Your task to perform on an android device: open the mobile data screen to see how much data has been used Image 0: 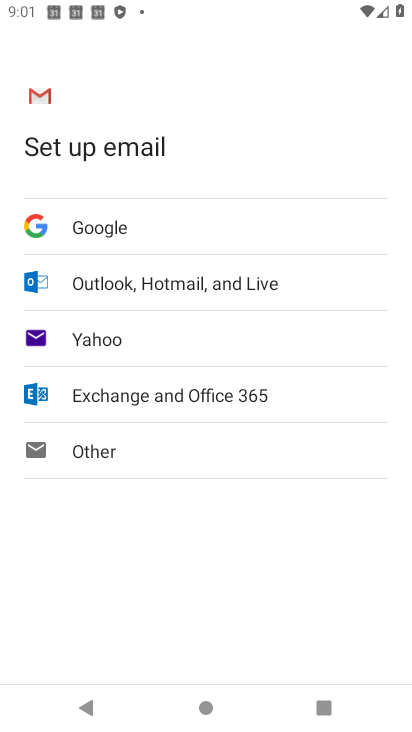
Step 0: press home button
Your task to perform on an android device: open the mobile data screen to see how much data has been used Image 1: 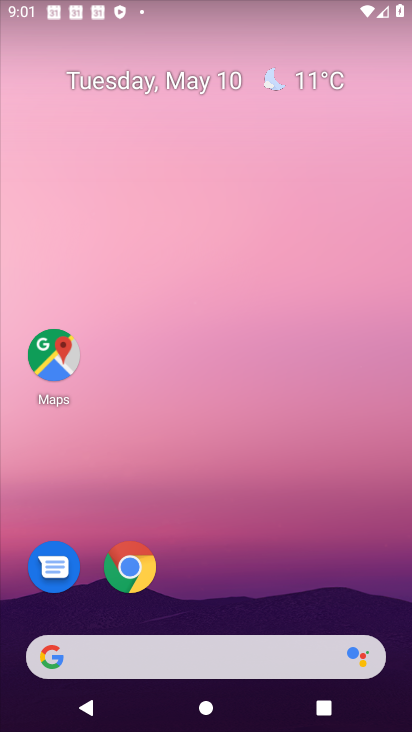
Step 1: drag from (152, 628) to (130, 286)
Your task to perform on an android device: open the mobile data screen to see how much data has been used Image 2: 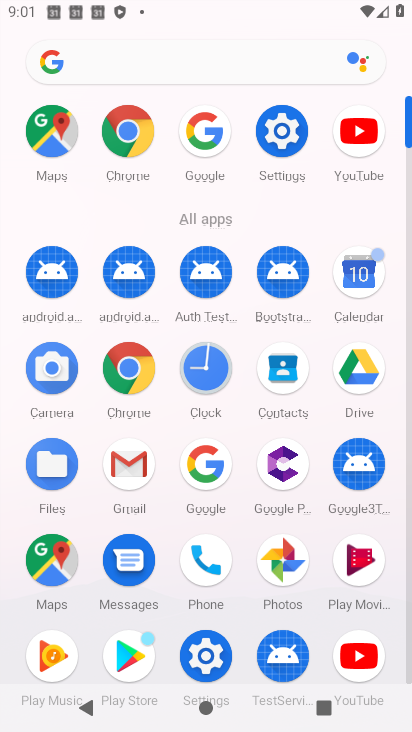
Step 2: click (280, 146)
Your task to perform on an android device: open the mobile data screen to see how much data has been used Image 3: 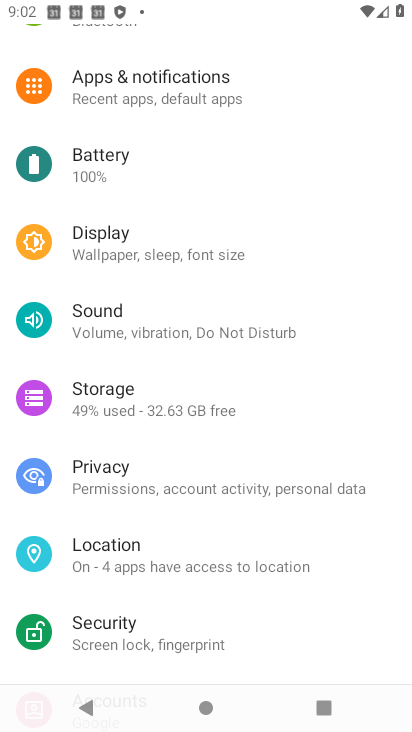
Step 3: drag from (182, 137) to (201, 562)
Your task to perform on an android device: open the mobile data screen to see how much data has been used Image 4: 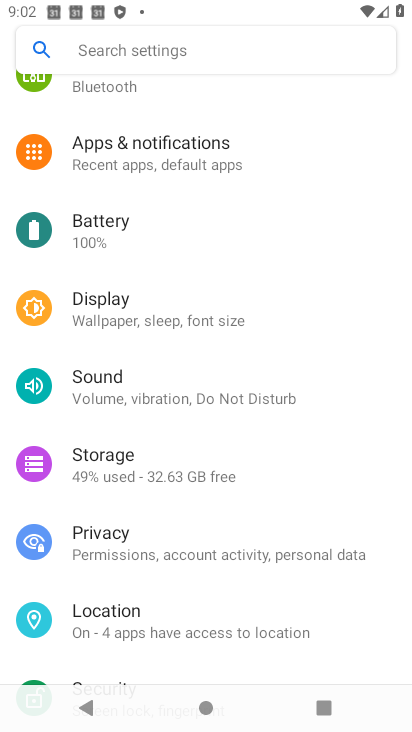
Step 4: drag from (188, 359) to (221, 467)
Your task to perform on an android device: open the mobile data screen to see how much data has been used Image 5: 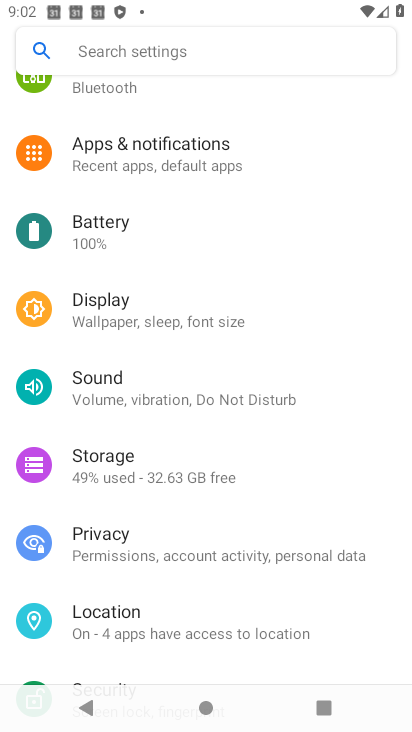
Step 5: drag from (154, 81) to (180, 436)
Your task to perform on an android device: open the mobile data screen to see how much data has been used Image 6: 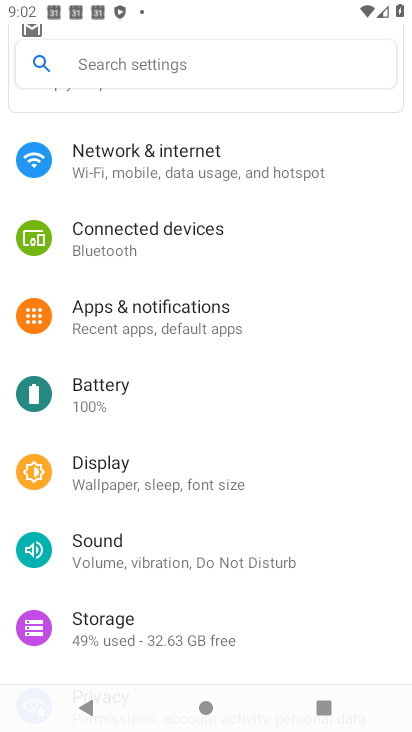
Step 6: click (148, 143)
Your task to perform on an android device: open the mobile data screen to see how much data has been used Image 7: 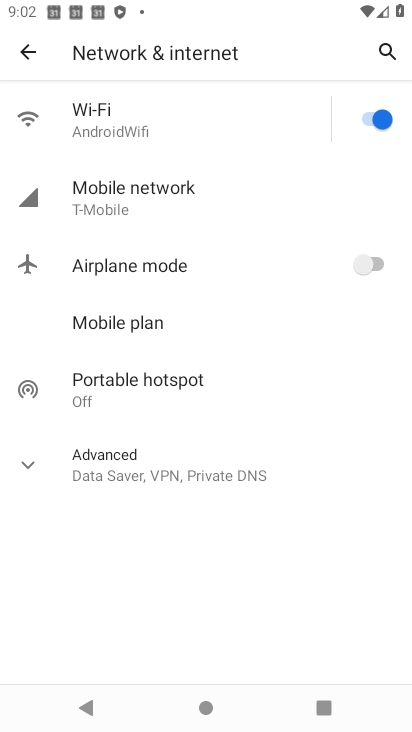
Step 7: click (141, 200)
Your task to perform on an android device: open the mobile data screen to see how much data has been used Image 8: 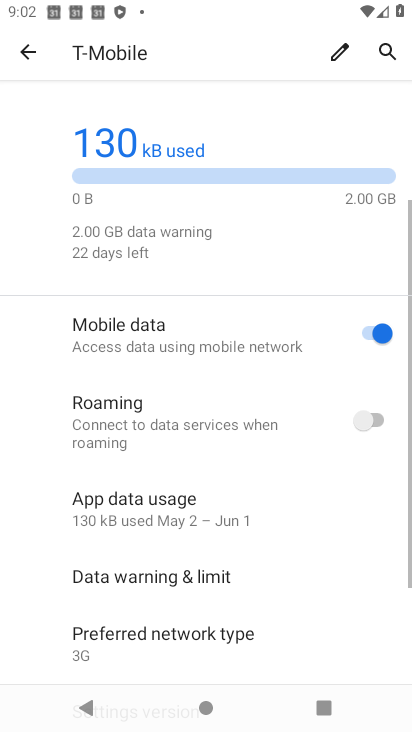
Step 8: task complete